Your task to perform on an android device: Clear the shopping cart on bestbuy.com. Search for "razer thresher" on bestbuy.com, select the first entry, add it to the cart, then select checkout. Image 0: 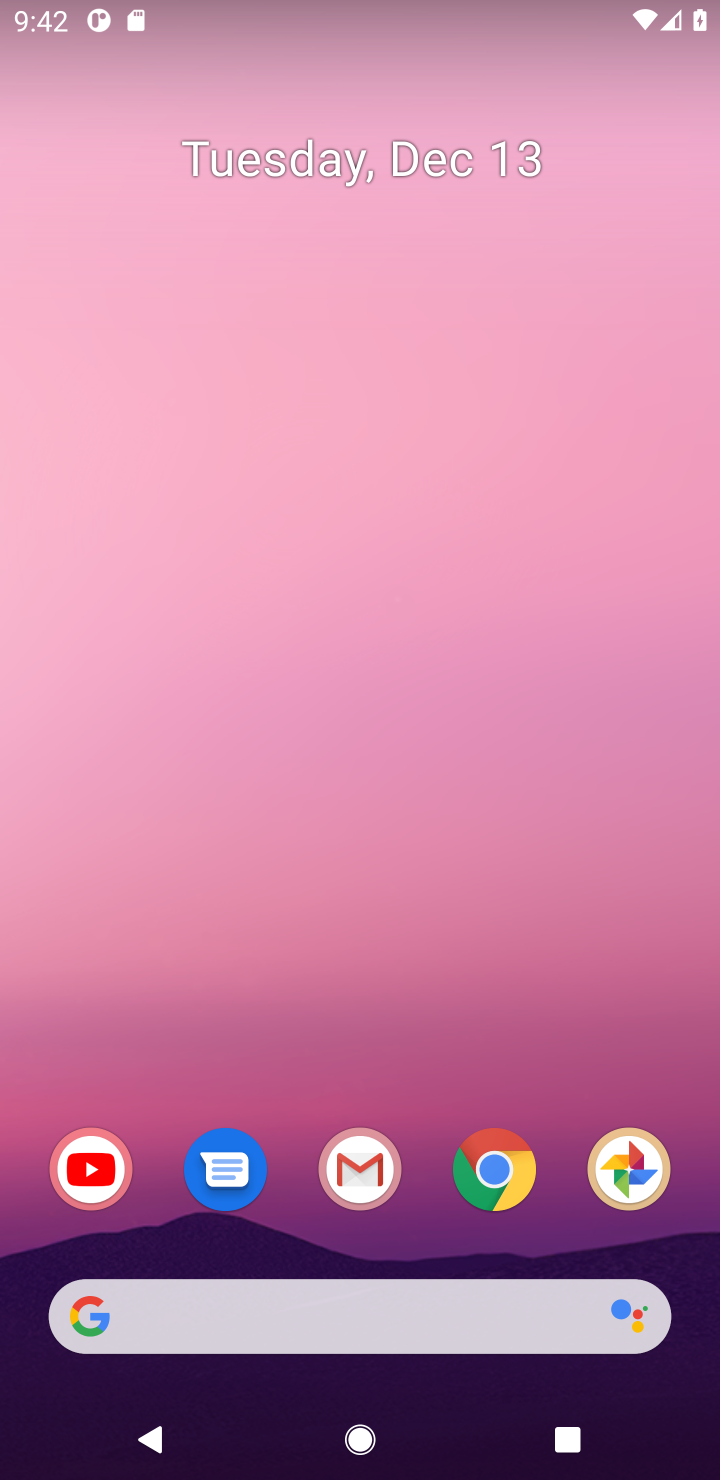
Step 0: press home button
Your task to perform on an android device: Clear the shopping cart on bestbuy.com. Search for "razer thresher" on bestbuy.com, select the first entry, add it to the cart, then select checkout. Image 1: 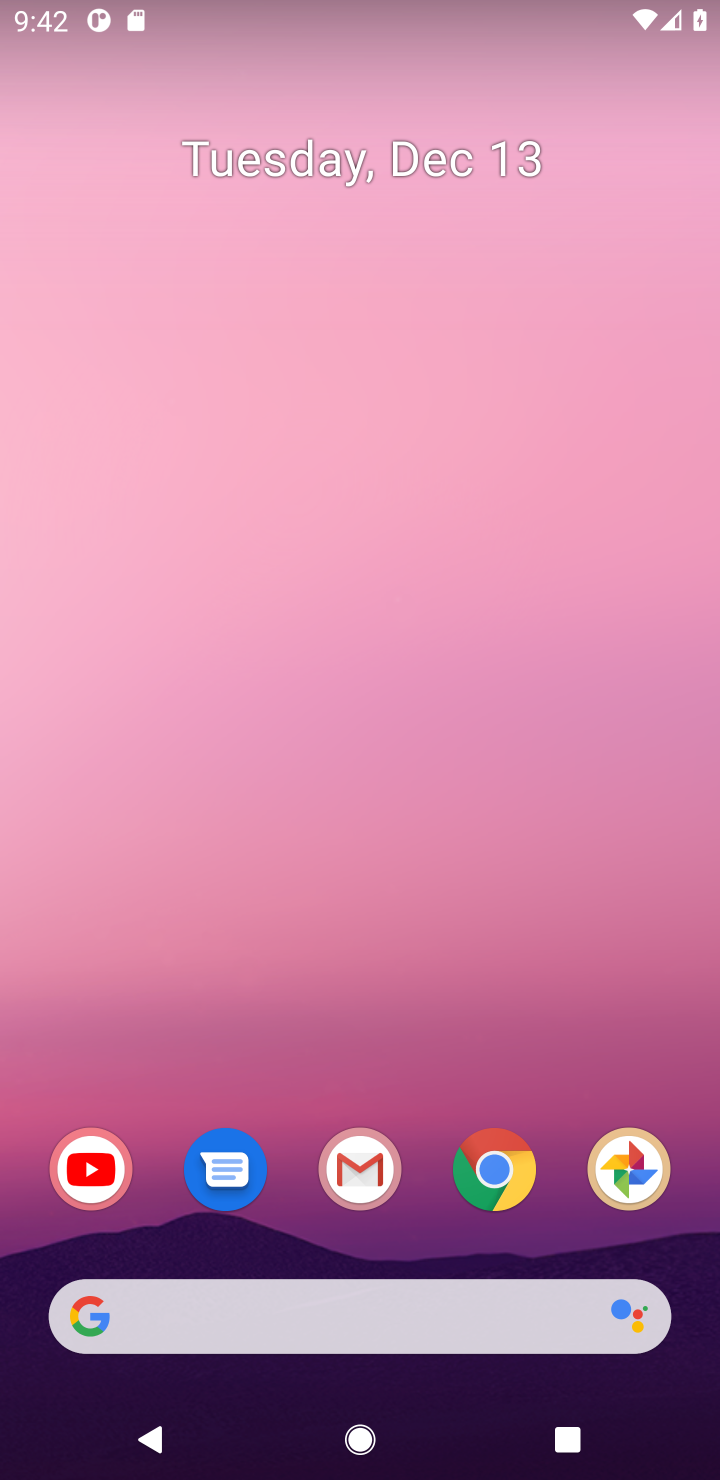
Step 1: click (528, 1157)
Your task to perform on an android device: Clear the shopping cart on bestbuy.com. Search for "razer thresher" on bestbuy.com, select the first entry, add it to the cart, then select checkout. Image 2: 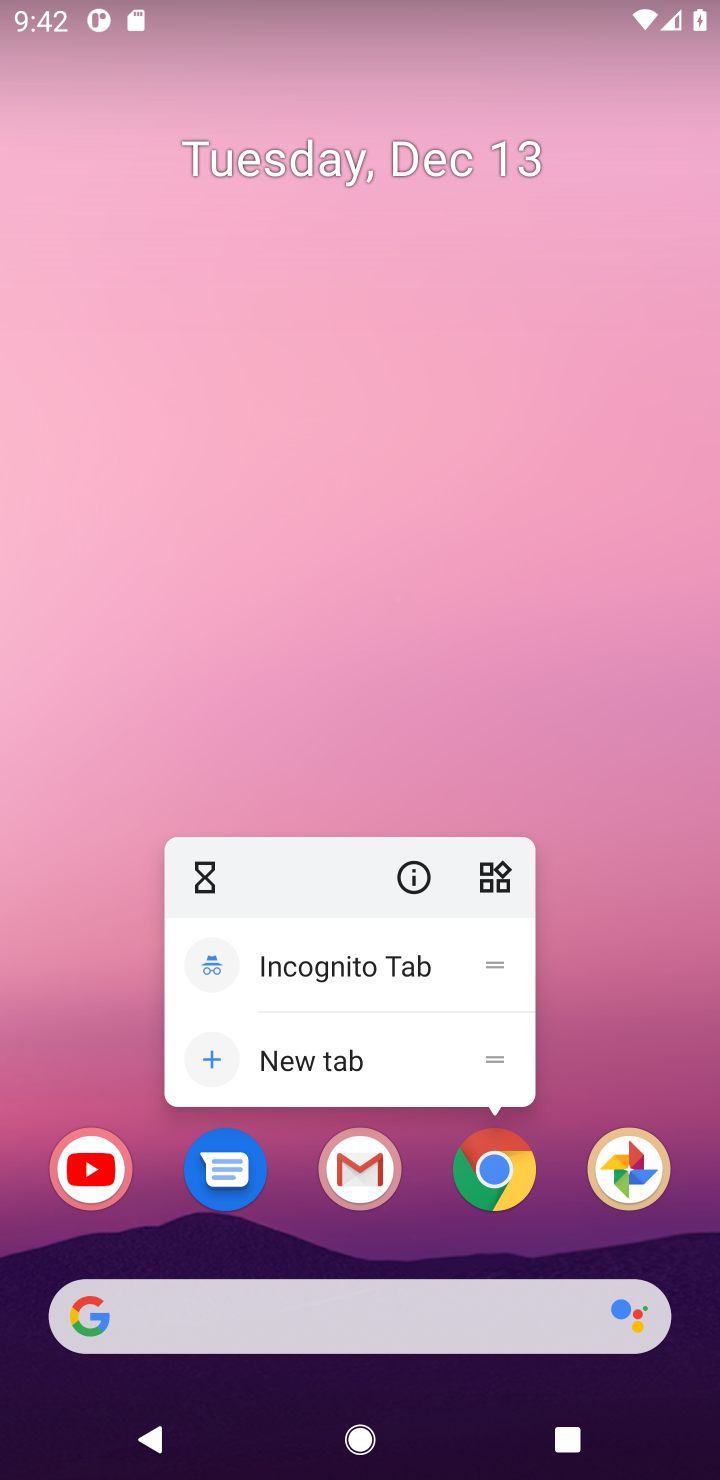
Step 2: click (528, 1157)
Your task to perform on an android device: Clear the shopping cart on bestbuy.com. Search for "razer thresher" on bestbuy.com, select the first entry, add it to the cart, then select checkout. Image 3: 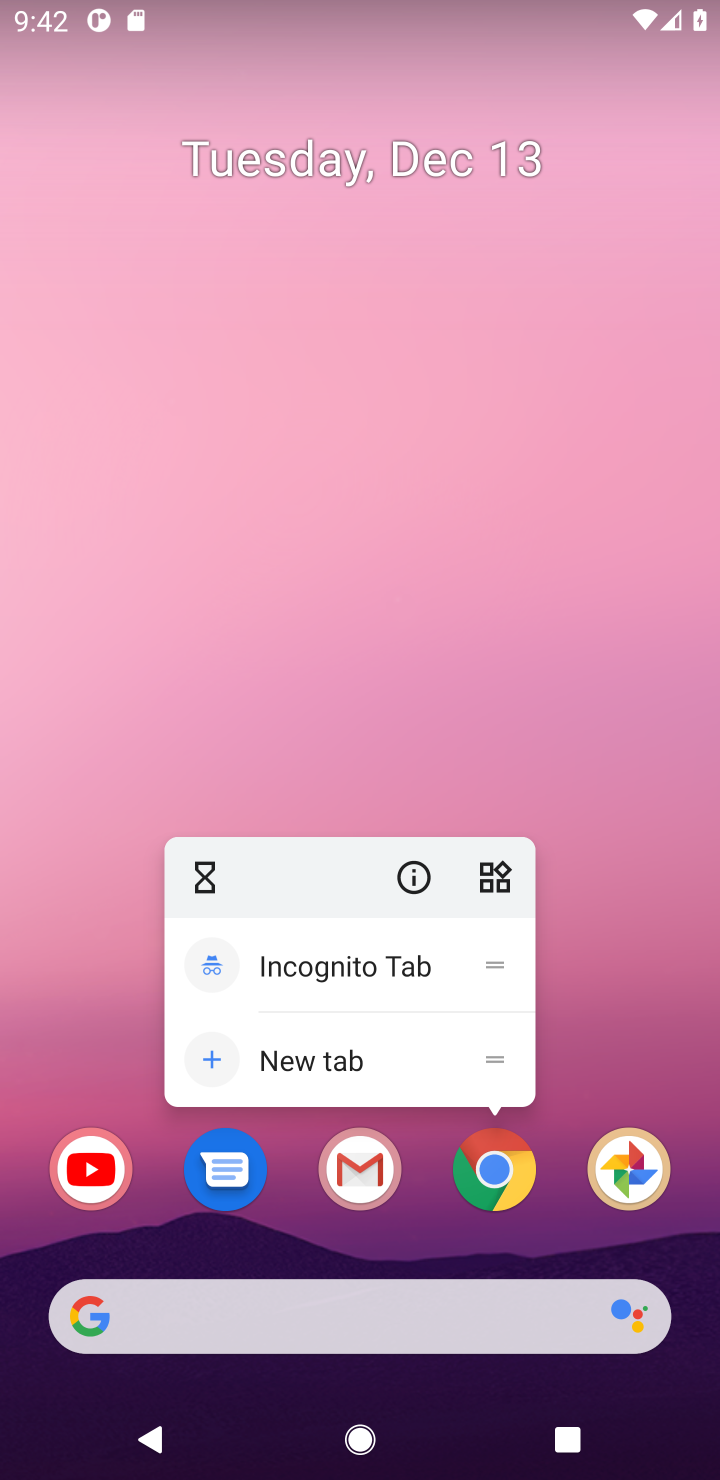
Step 3: click (495, 1191)
Your task to perform on an android device: Clear the shopping cart on bestbuy.com. Search for "razer thresher" on bestbuy.com, select the first entry, add it to the cart, then select checkout. Image 4: 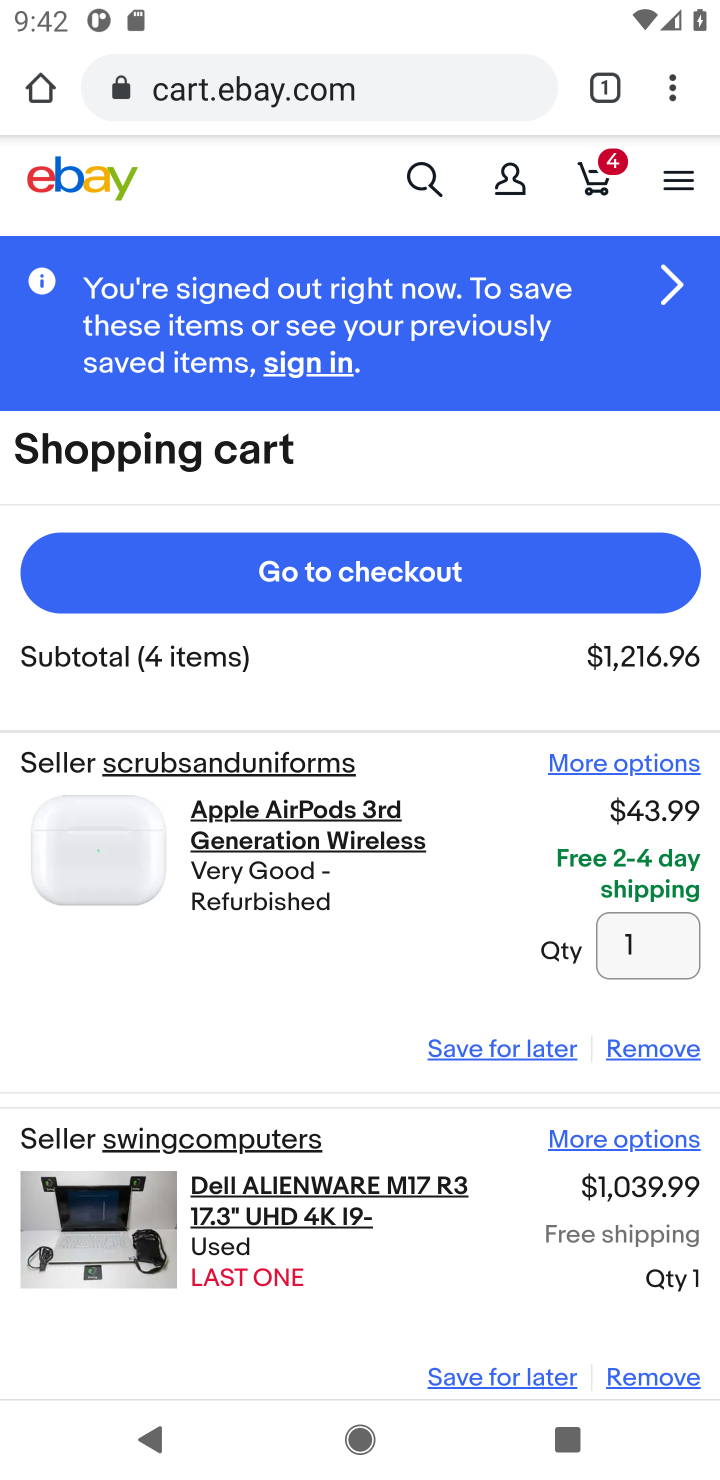
Step 4: click (292, 112)
Your task to perform on an android device: Clear the shopping cart on bestbuy.com. Search for "razer thresher" on bestbuy.com, select the first entry, add it to the cart, then select checkout. Image 5: 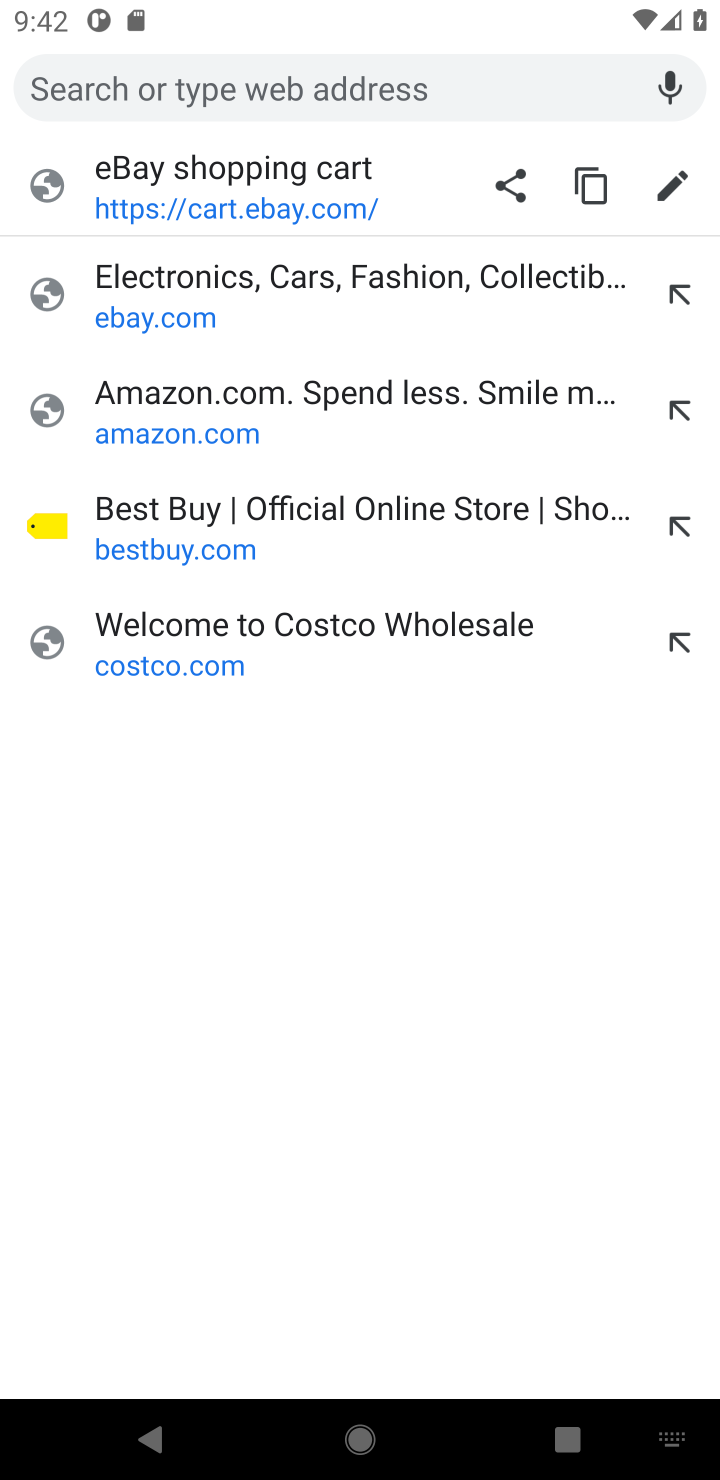
Step 5: click (130, 516)
Your task to perform on an android device: Clear the shopping cart on bestbuy.com. Search for "razer thresher" on bestbuy.com, select the first entry, add it to the cart, then select checkout. Image 6: 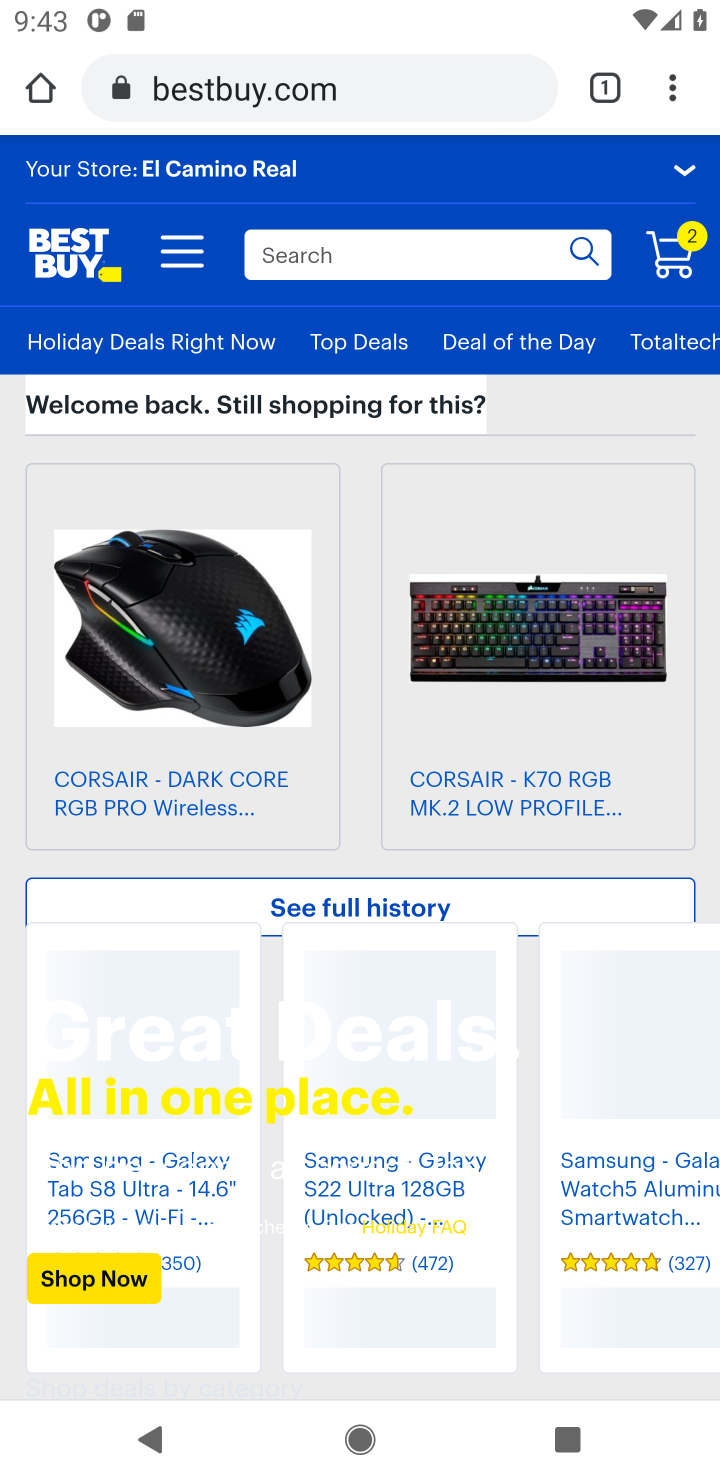
Step 6: click (318, 254)
Your task to perform on an android device: Clear the shopping cart on bestbuy.com. Search for "razer thresher" on bestbuy.com, select the first entry, add it to the cart, then select checkout. Image 7: 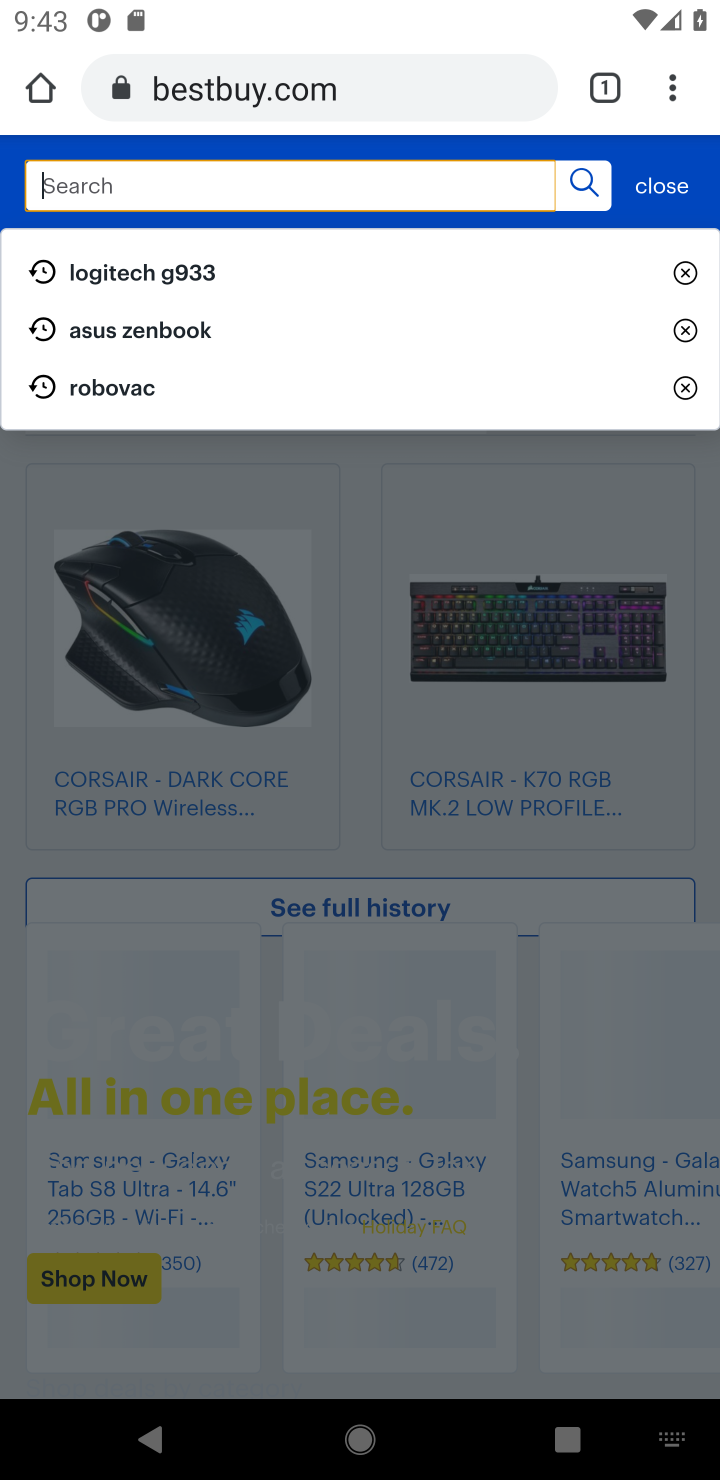
Step 7: type "razer thresher"
Your task to perform on an android device: Clear the shopping cart on bestbuy.com. Search for "razer thresher" on bestbuy.com, select the first entry, add it to the cart, then select checkout. Image 8: 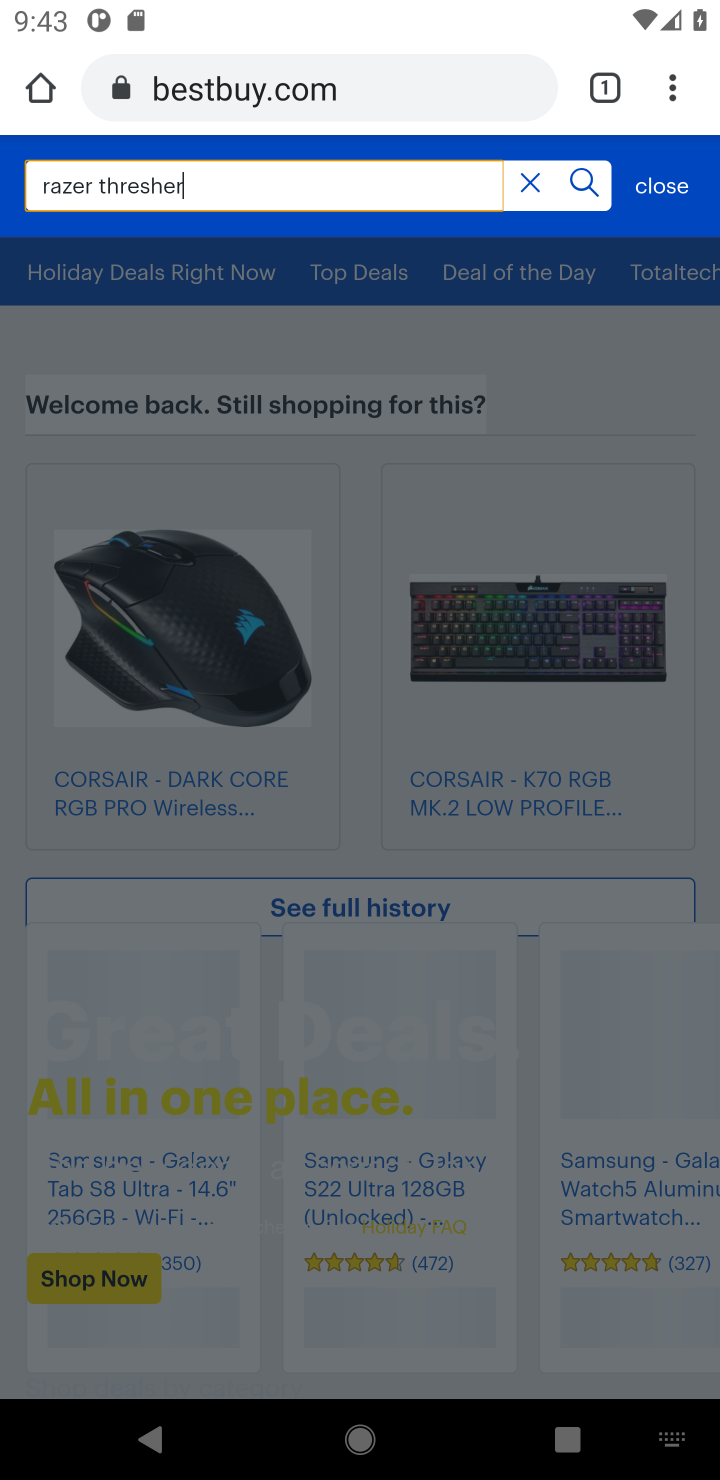
Step 8: click (568, 192)
Your task to perform on an android device: Clear the shopping cart on bestbuy.com. Search for "razer thresher" on bestbuy.com, select the first entry, add it to the cart, then select checkout. Image 9: 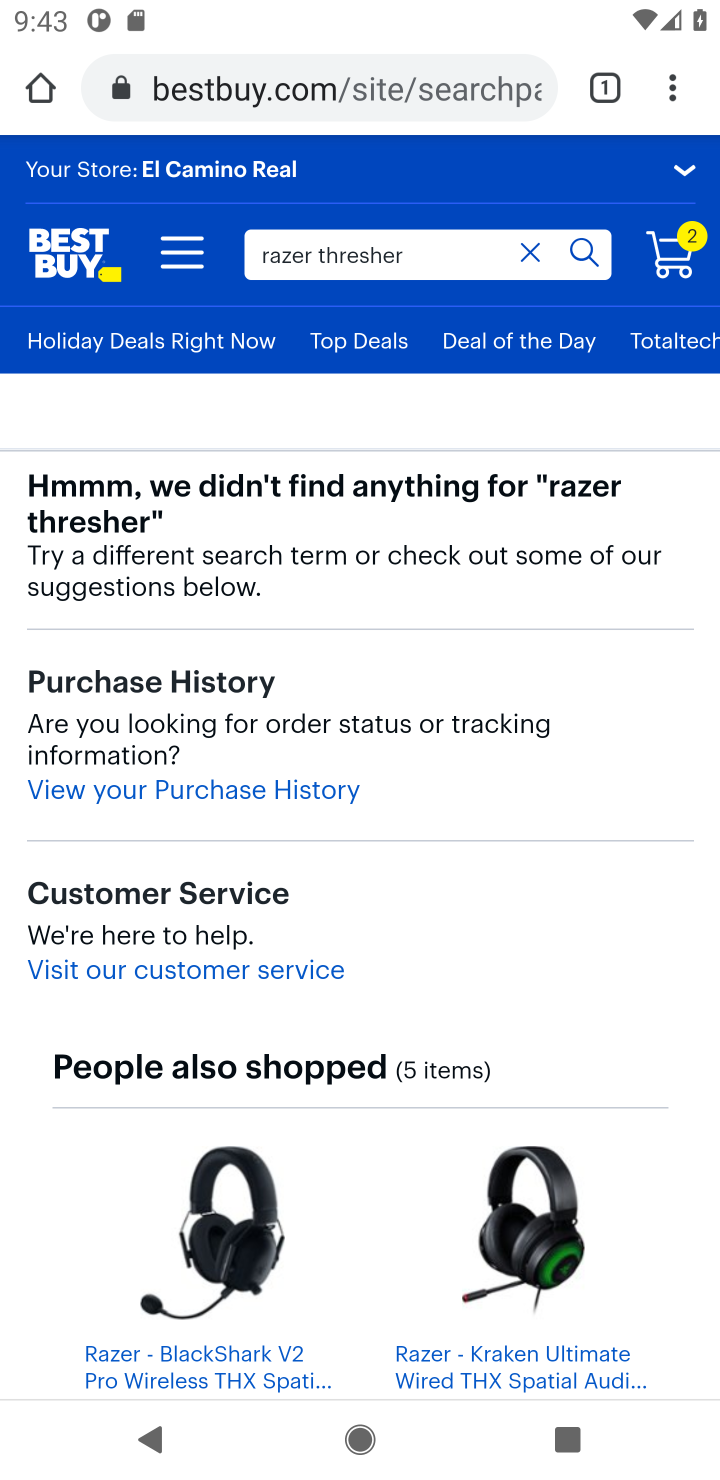
Step 9: drag from (137, 1252) to (173, 675)
Your task to perform on an android device: Clear the shopping cart on bestbuy.com. Search for "razer thresher" on bestbuy.com, select the first entry, add it to the cart, then select checkout. Image 10: 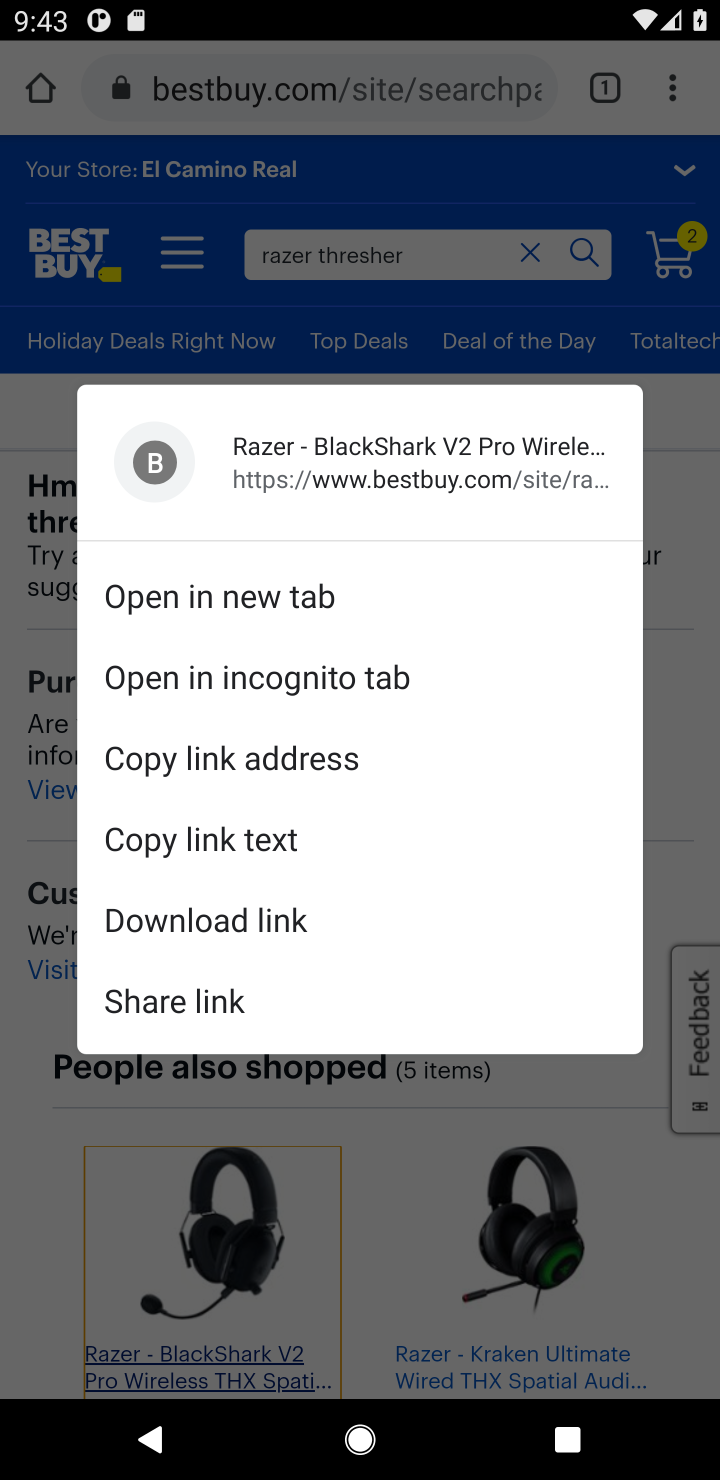
Step 10: click (446, 1059)
Your task to perform on an android device: Clear the shopping cart on bestbuy.com. Search for "razer thresher" on bestbuy.com, select the first entry, add it to the cart, then select checkout. Image 11: 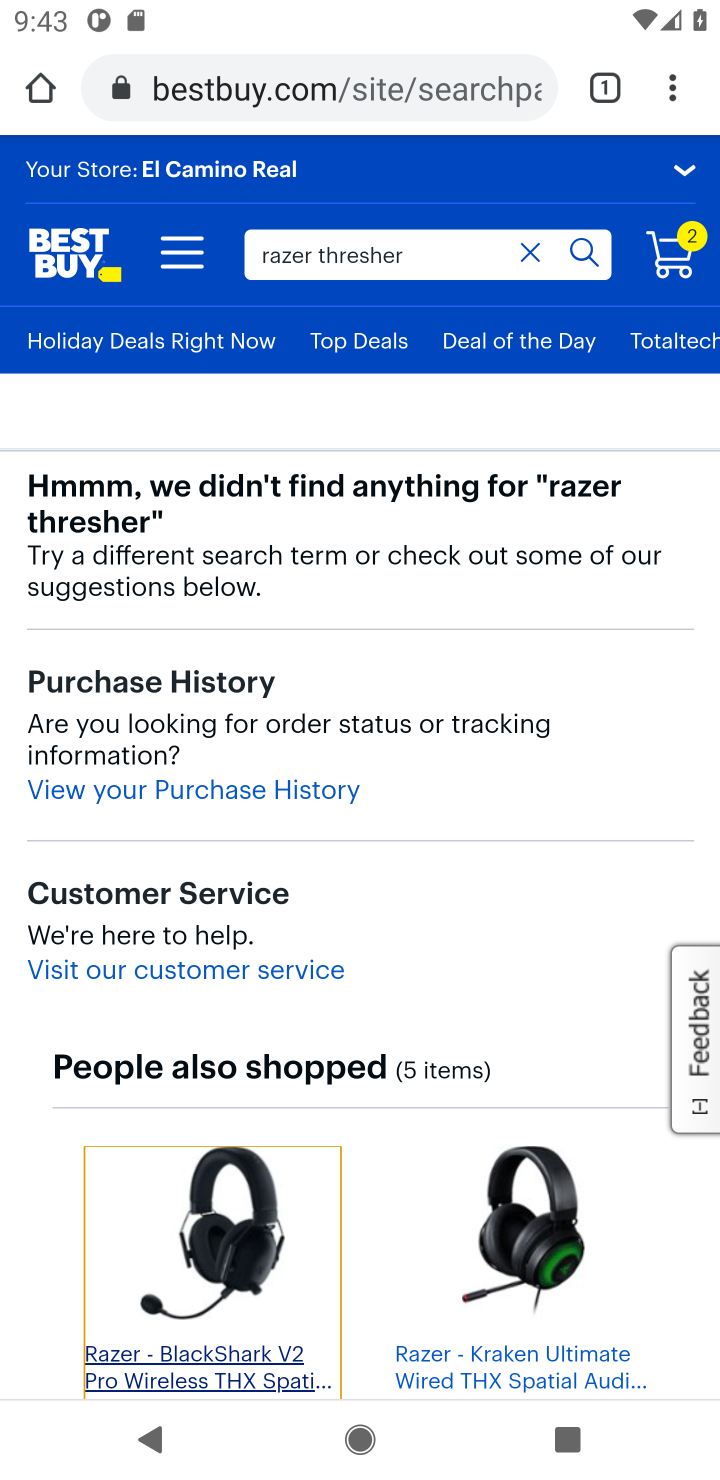
Step 11: drag from (204, 1280) to (338, 552)
Your task to perform on an android device: Clear the shopping cart on bestbuy.com. Search for "razer thresher" on bestbuy.com, select the first entry, add it to the cart, then select checkout. Image 12: 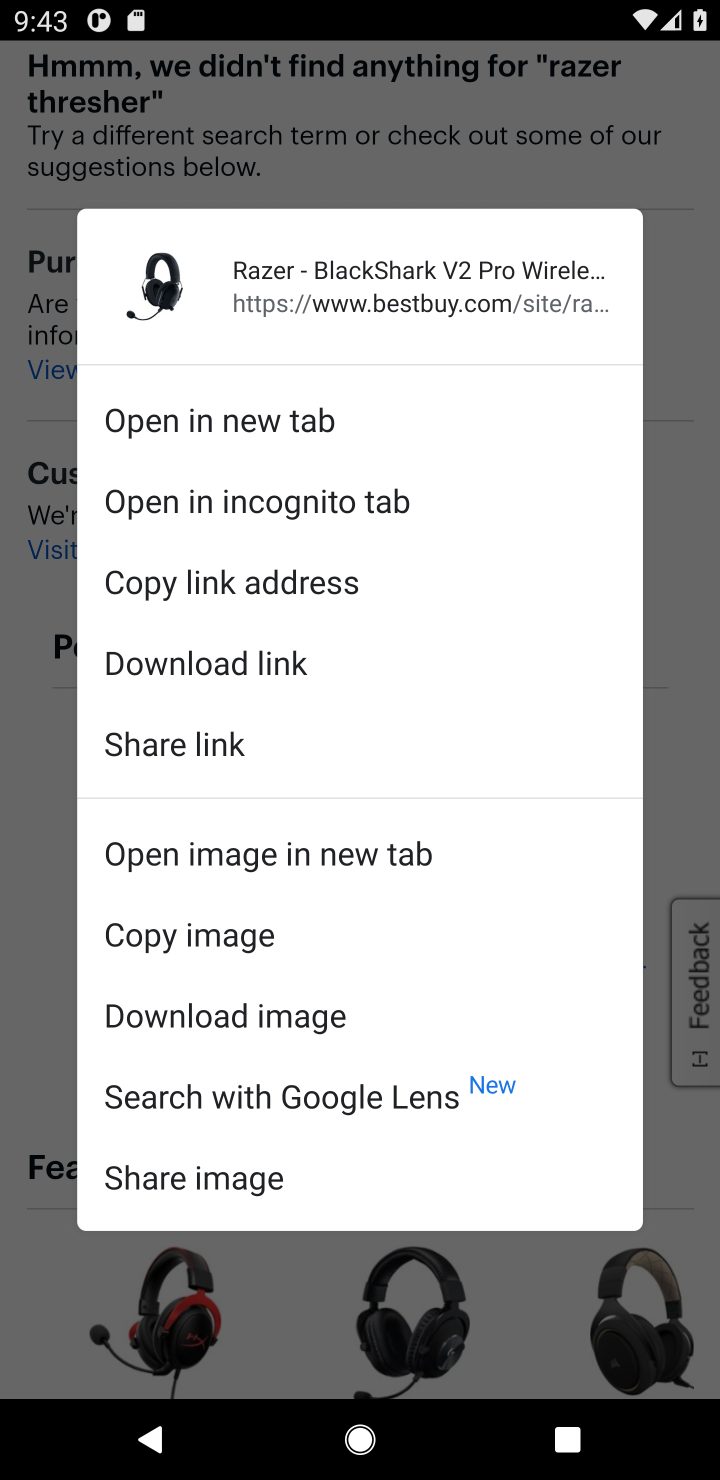
Step 12: click (45, 882)
Your task to perform on an android device: Clear the shopping cart on bestbuy.com. Search for "razer thresher" on bestbuy.com, select the first entry, add it to the cart, then select checkout. Image 13: 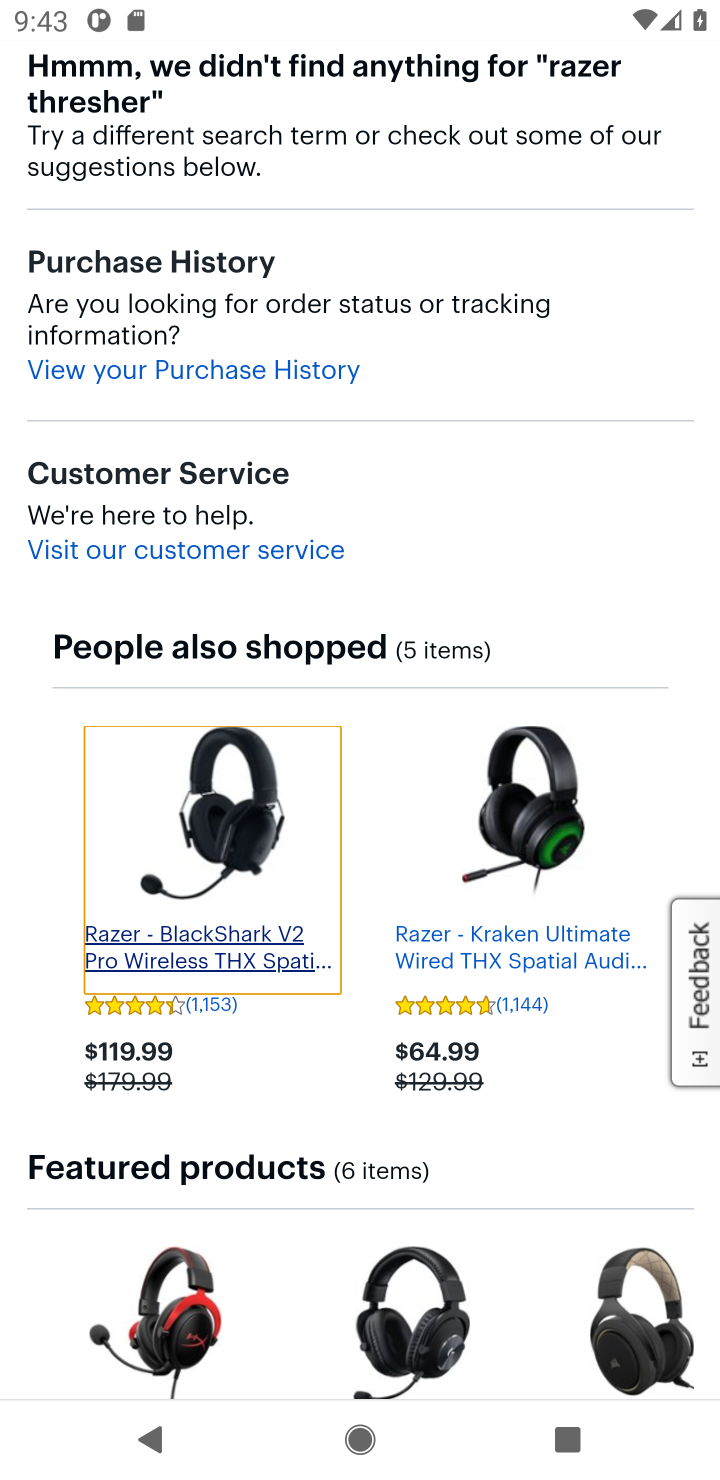
Step 13: click (182, 924)
Your task to perform on an android device: Clear the shopping cart on bestbuy.com. Search for "razer thresher" on bestbuy.com, select the first entry, add it to the cart, then select checkout. Image 14: 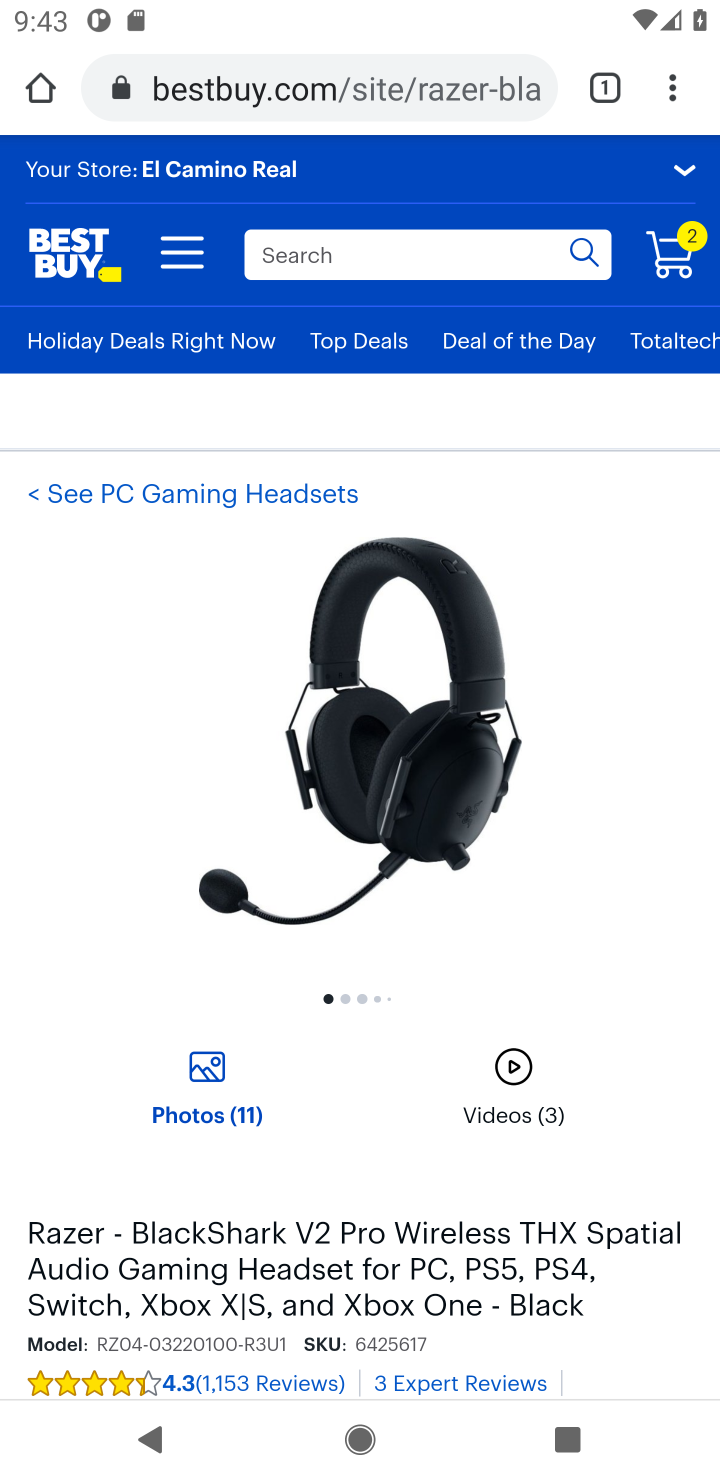
Step 14: task complete